Your task to perform on an android device: open device folders in google photos Image 0: 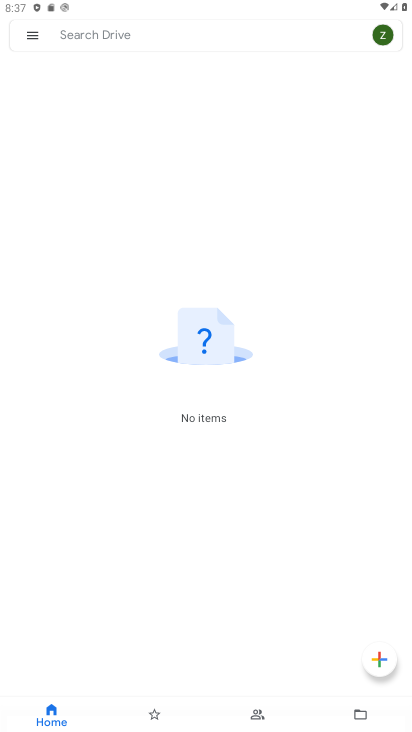
Step 0: press home button
Your task to perform on an android device: open device folders in google photos Image 1: 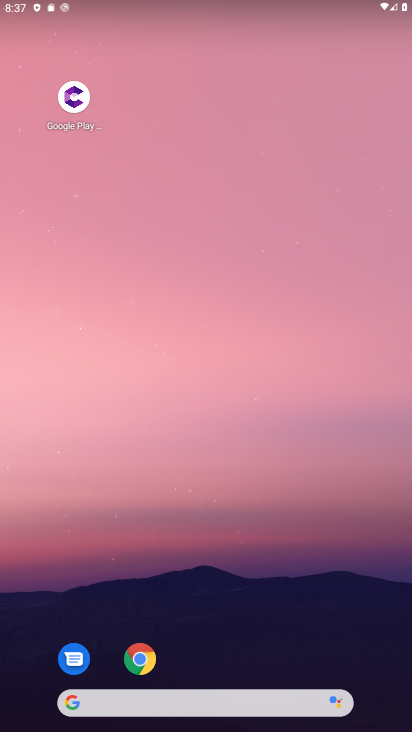
Step 1: drag from (221, 603) to (195, 271)
Your task to perform on an android device: open device folders in google photos Image 2: 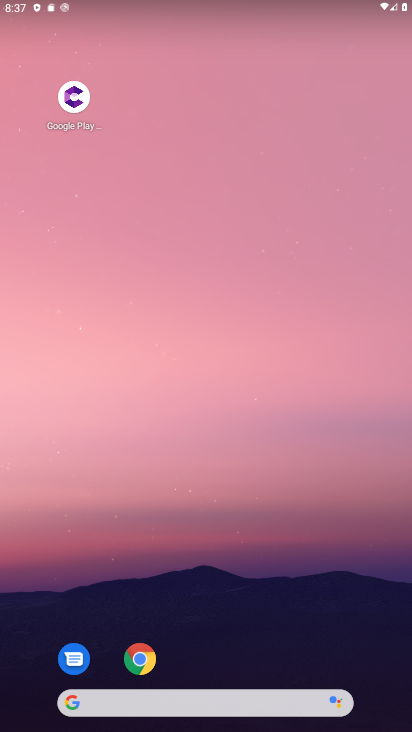
Step 2: drag from (208, 619) to (218, 0)
Your task to perform on an android device: open device folders in google photos Image 3: 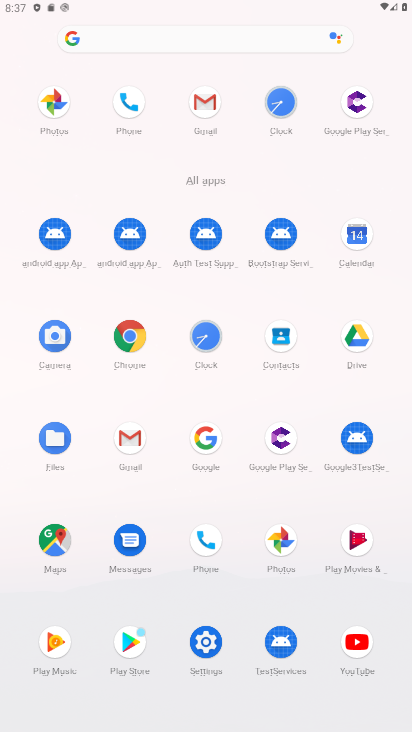
Step 3: click (54, 105)
Your task to perform on an android device: open device folders in google photos Image 4: 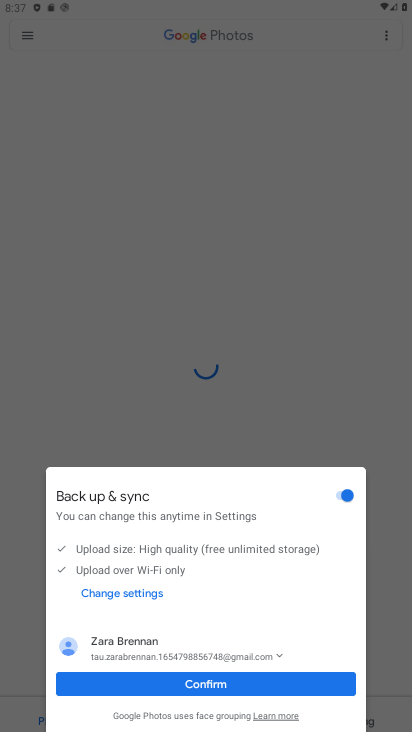
Step 4: click (209, 689)
Your task to perform on an android device: open device folders in google photos Image 5: 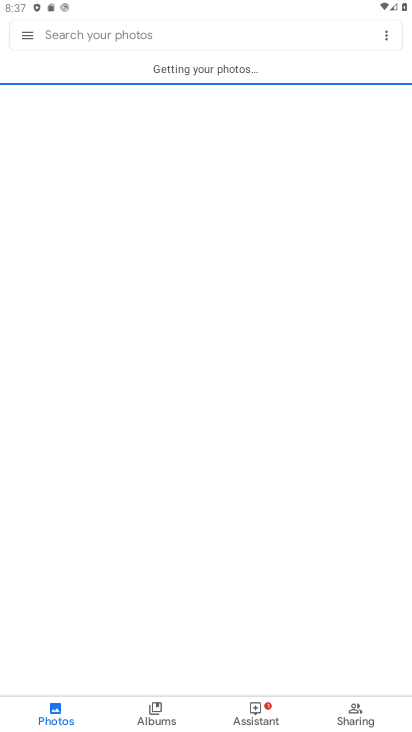
Step 5: click (29, 34)
Your task to perform on an android device: open device folders in google photos Image 6: 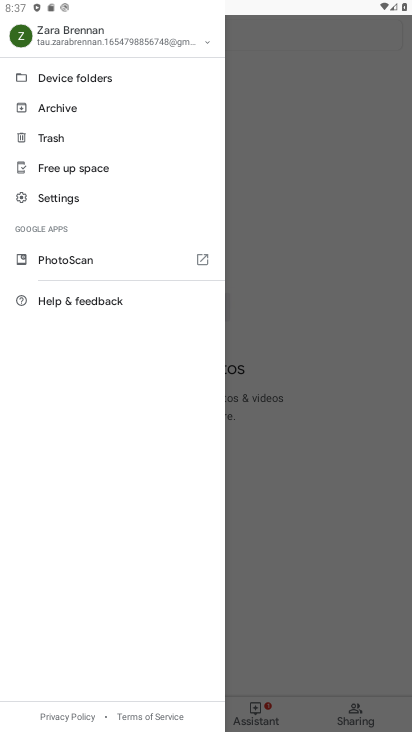
Step 6: click (66, 79)
Your task to perform on an android device: open device folders in google photos Image 7: 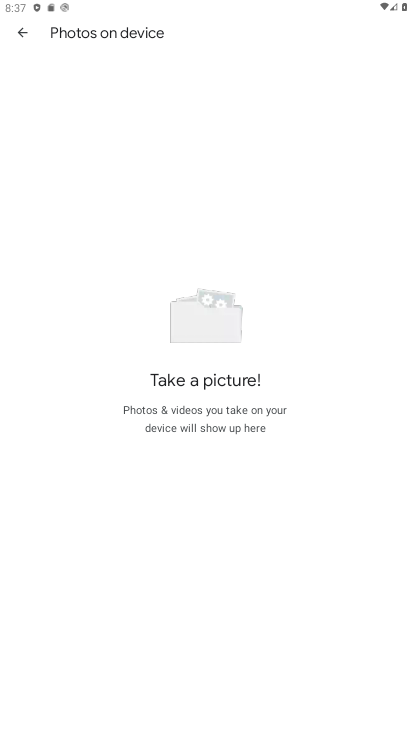
Step 7: task complete